Your task to perform on an android device: turn off wifi Image 0: 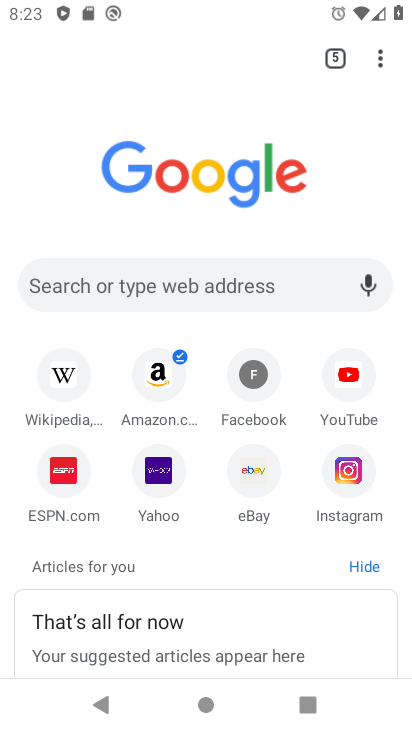
Step 0: press back button
Your task to perform on an android device: turn off wifi Image 1: 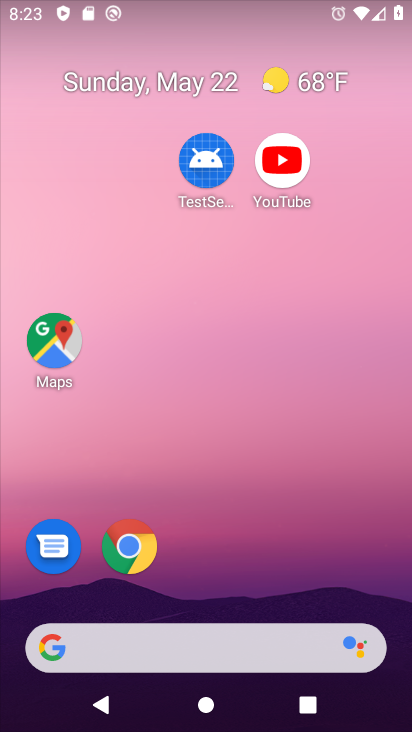
Step 1: drag from (258, 681) to (215, 13)
Your task to perform on an android device: turn off wifi Image 2: 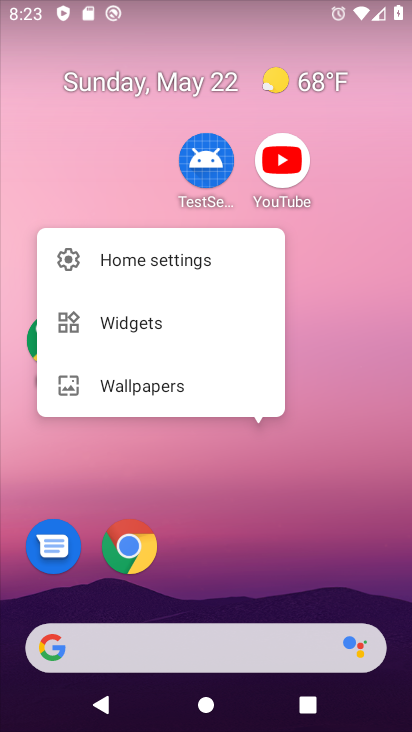
Step 2: drag from (237, 514) to (268, 155)
Your task to perform on an android device: turn off wifi Image 3: 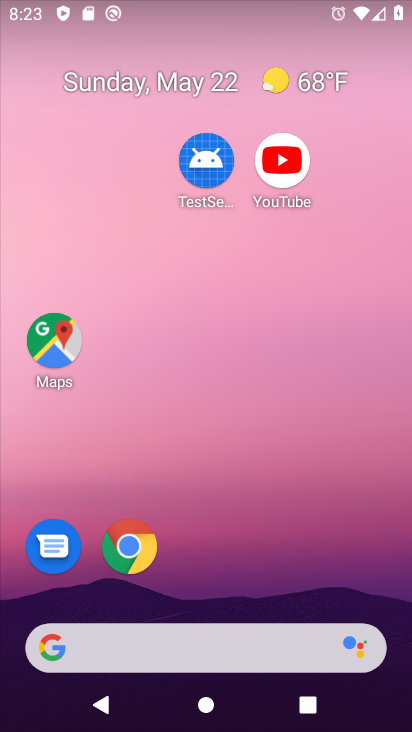
Step 3: drag from (197, 191) to (197, 107)
Your task to perform on an android device: turn off wifi Image 4: 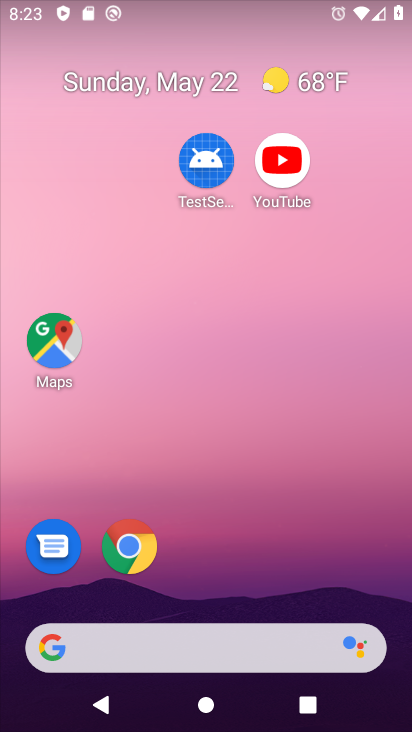
Step 4: drag from (260, 667) to (154, 4)
Your task to perform on an android device: turn off wifi Image 5: 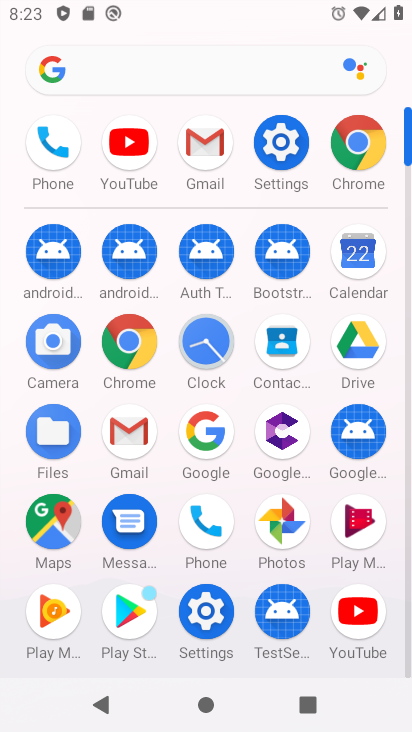
Step 5: click (276, 156)
Your task to perform on an android device: turn off wifi Image 6: 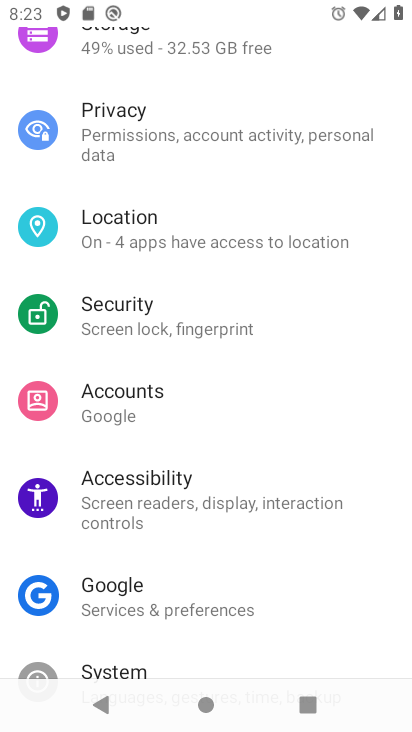
Step 6: drag from (142, 204) to (183, 525)
Your task to perform on an android device: turn off wifi Image 7: 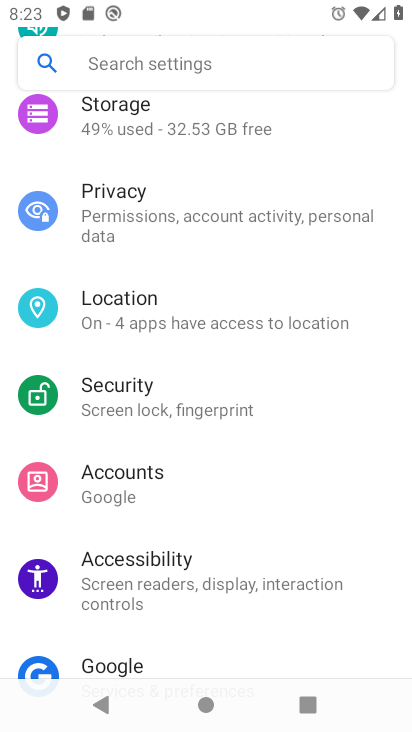
Step 7: drag from (94, 163) to (153, 488)
Your task to perform on an android device: turn off wifi Image 8: 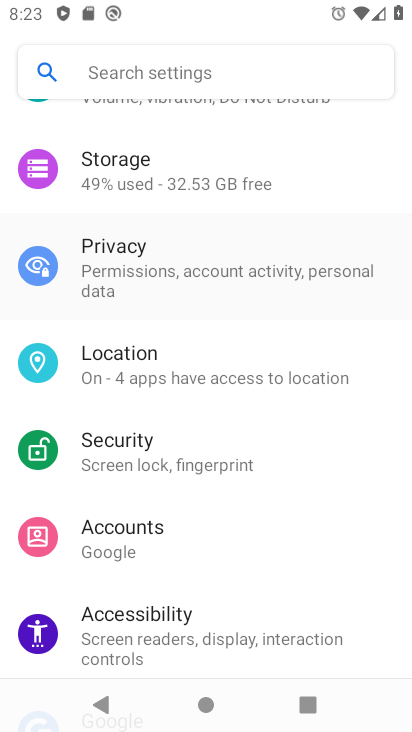
Step 8: drag from (143, 203) to (166, 453)
Your task to perform on an android device: turn off wifi Image 9: 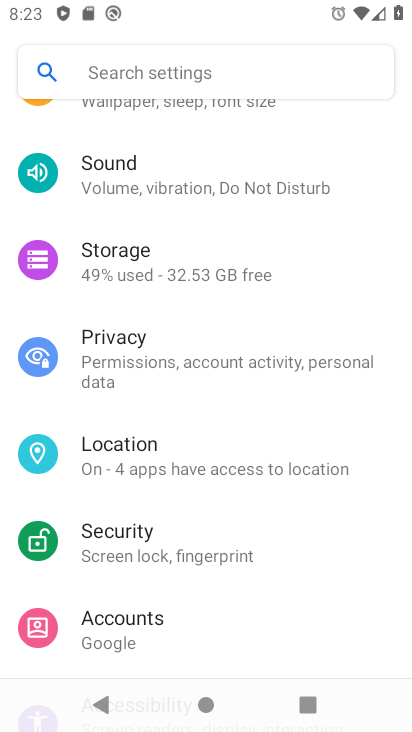
Step 9: drag from (154, 257) to (212, 602)
Your task to perform on an android device: turn off wifi Image 10: 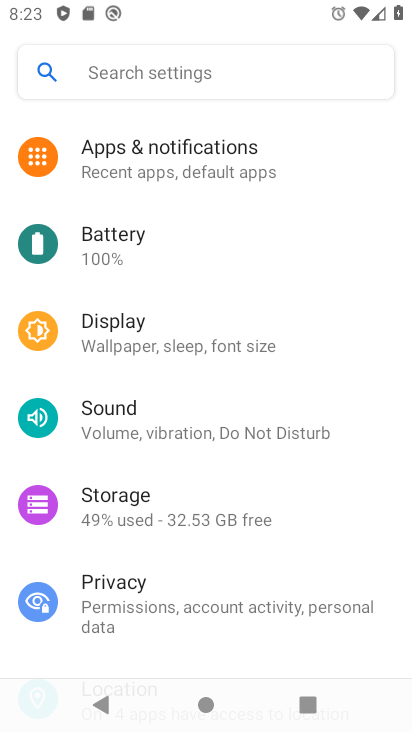
Step 10: drag from (210, 230) to (266, 690)
Your task to perform on an android device: turn off wifi Image 11: 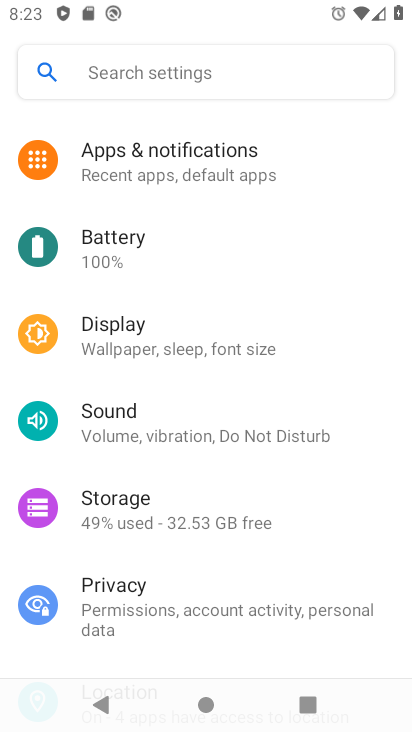
Step 11: drag from (179, 195) to (142, 718)
Your task to perform on an android device: turn off wifi Image 12: 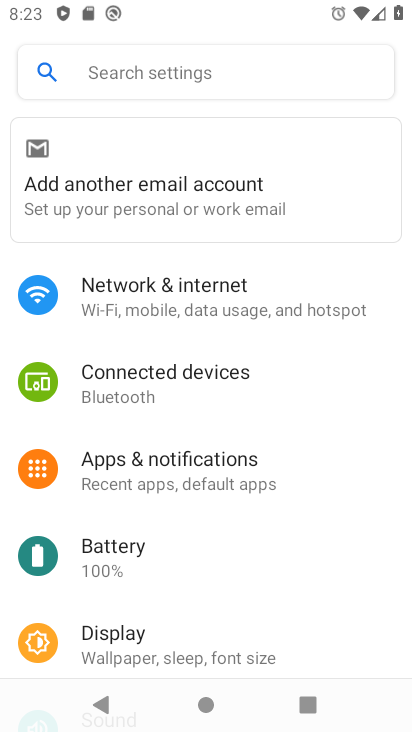
Step 12: click (174, 307)
Your task to perform on an android device: turn off wifi Image 13: 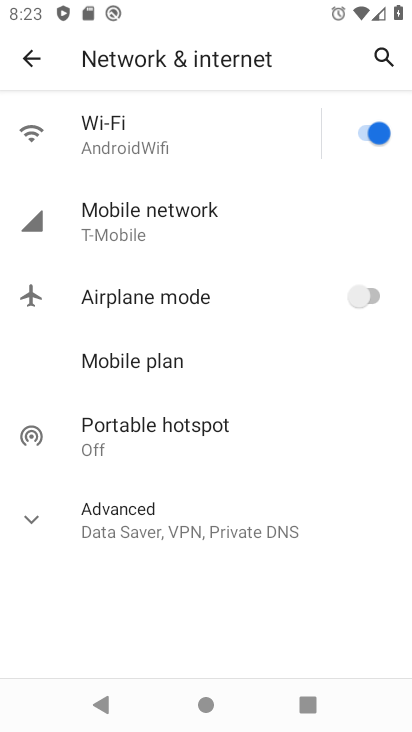
Step 13: click (377, 125)
Your task to perform on an android device: turn off wifi Image 14: 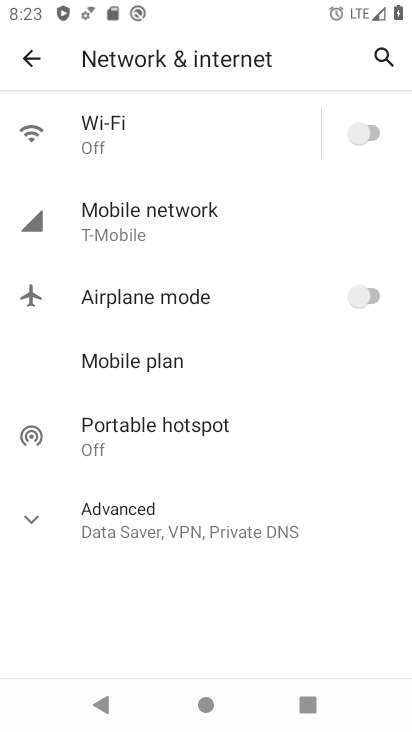
Step 14: task complete